Your task to perform on an android device: Open ESPN.com Image 0: 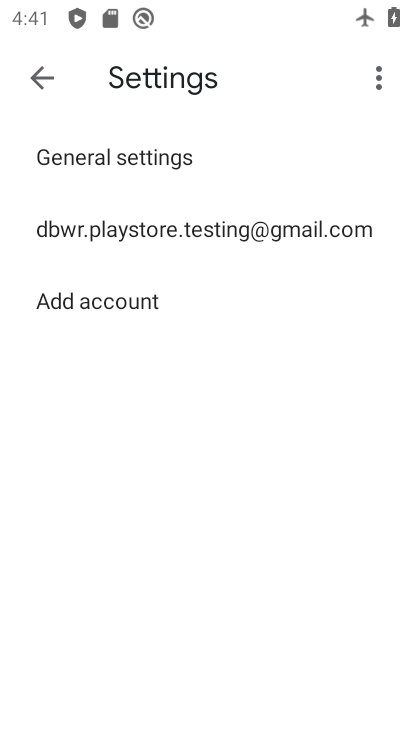
Step 0: press home button
Your task to perform on an android device: Open ESPN.com Image 1: 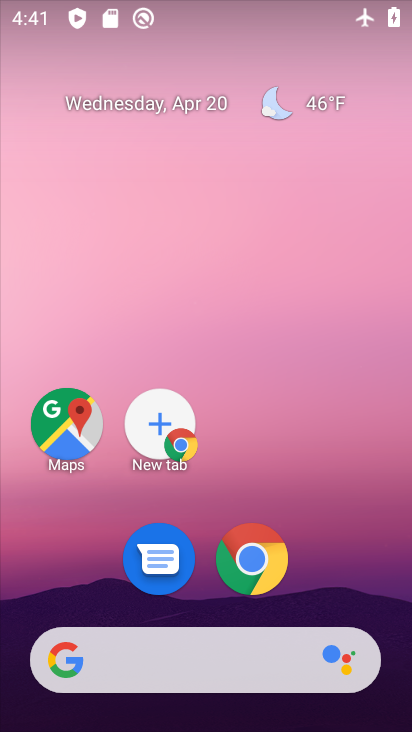
Step 1: drag from (332, 549) to (321, 157)
Your task to perform on an android device: Open ESPN.com Image 2: 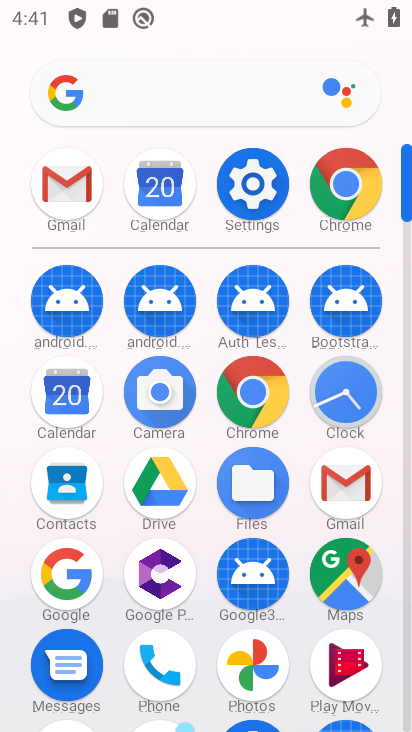
Step 2: click (263, 200)
Your task to perform on an android device: Open ESPN.com Image 3: 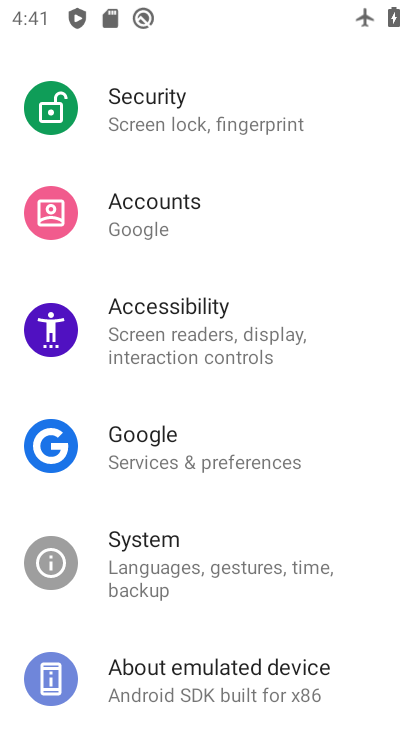
Step 3: drag from (284, 189) to (213, 680)
Your task to perform on an android device: Open ESPN.com Image 4: 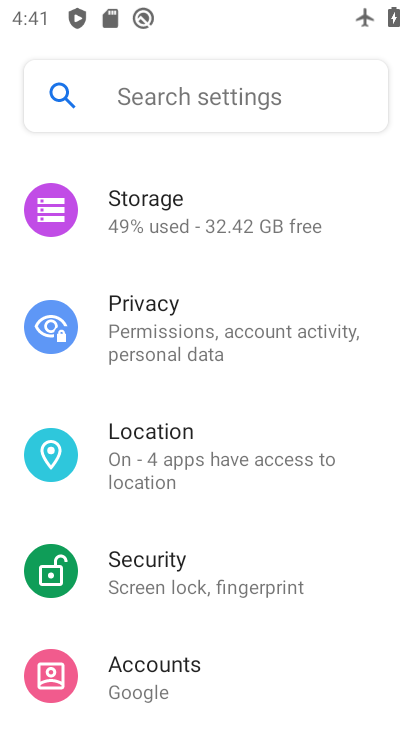
Step 4: drag from (187, 261) to (162, 684)
Your task to perform on an android device: Open ESPN.com Image 5: 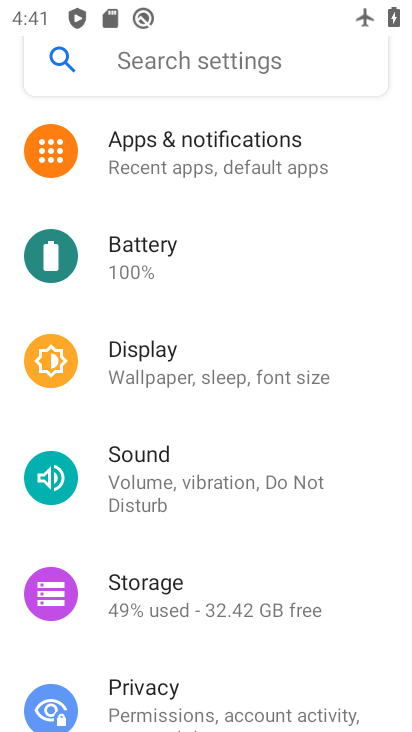
Step 5: drag from (184, 296) to (146, 646)
Your task to perform on an android device: Open ESPN.com Image 6: 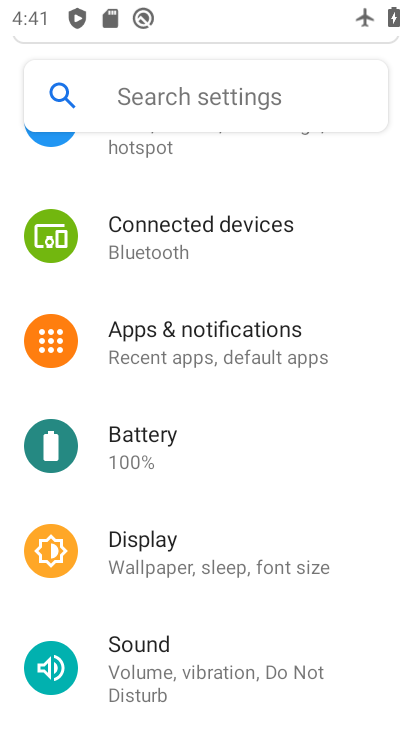
Step 6: drag from (230, 226) to (199, 574)
Your task to perform on an android device: Open ESPN.com Image 7: 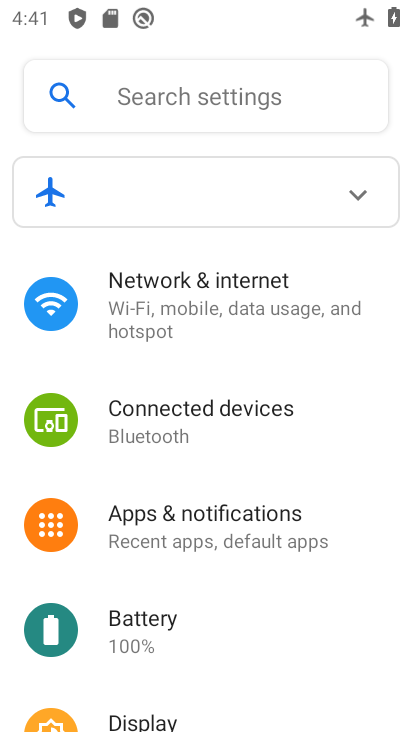
Step 7: click (173, 292)
Your task to perform on an android device: Open ESPN.com Image 8: 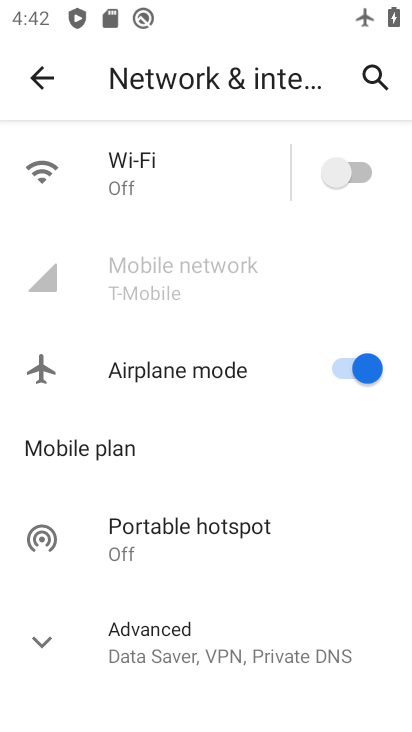
Step 8: click (344, 366)
Your task to perform on an android device: Open ESPN.com Image 9: 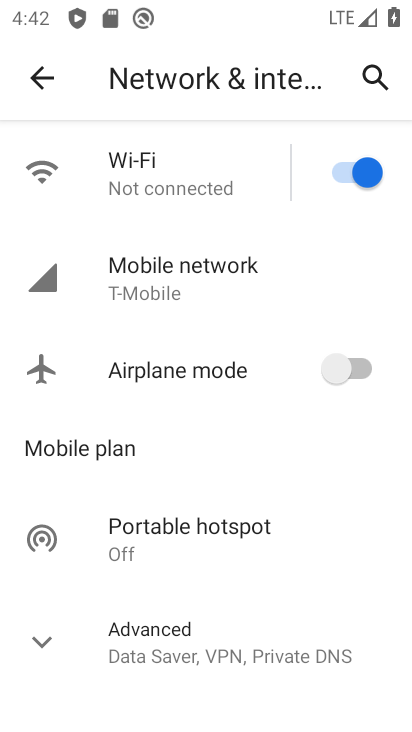
Step 9: press home button
Your task to perform on an android device: Open ESPN.com Image 10: 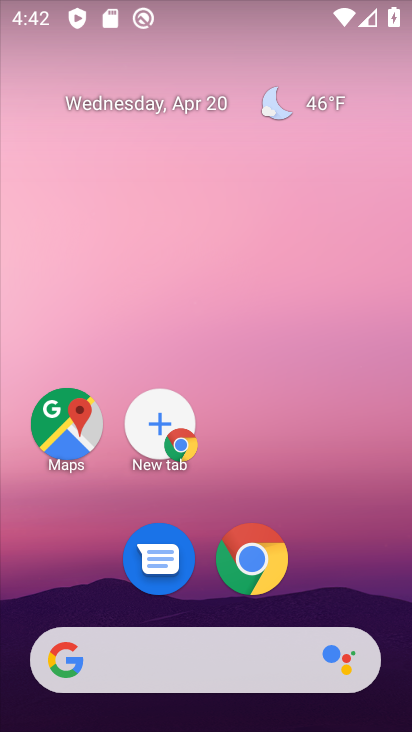
Step 10: click (255, 543)
Your task to perform on an android device: Open ESPN.com Image 11: 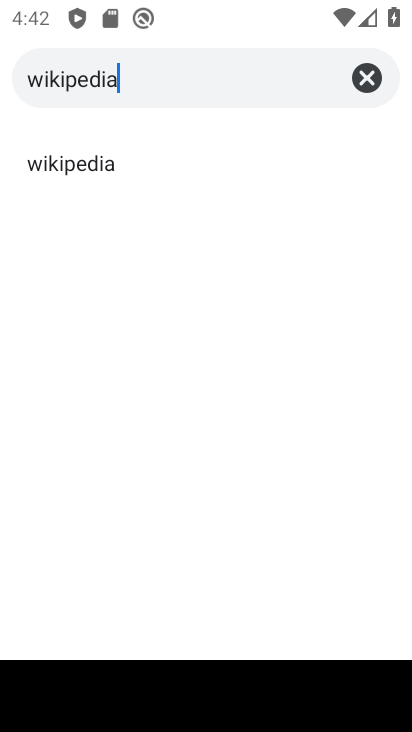
Step 11: click (365, 71)
Your task to perform on an android device: Open ESPN.com Image 12: 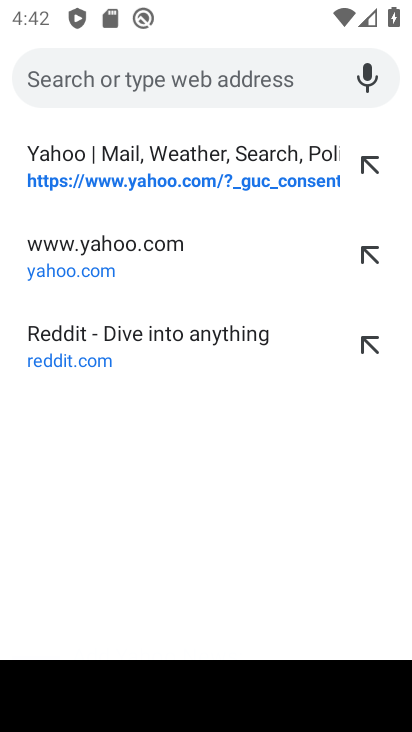
Step 12: type "espn"
Your task to perform on an android device: Open ESPN.com Image 13: 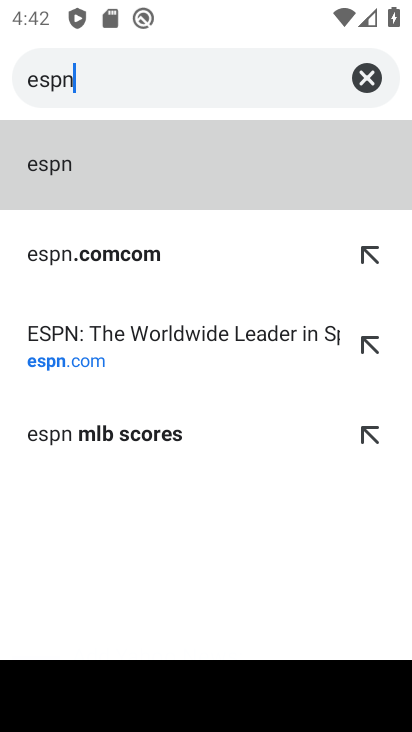
Step 13: click (165, 327)
Your task to perform on an android device: Open ESPN.com Image 14: 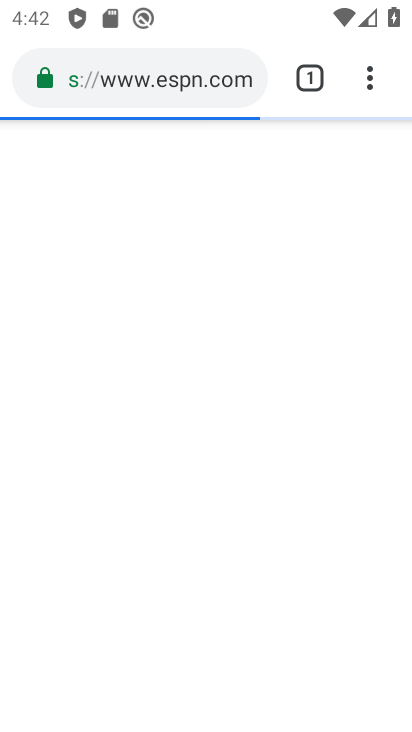
Step 14: task complete